Your task to perform on an android device: Search for pizza restaurants on Maps Image 0: 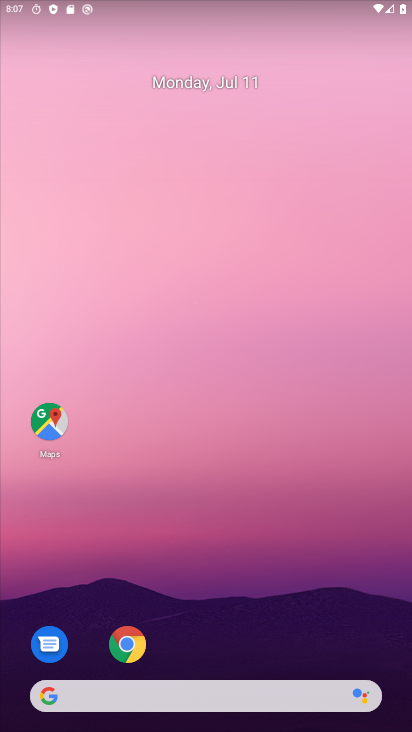
Step 0: click (45, 424)
Your task to perform on an android device: Search for pizza restaurants on Maps Image 1: 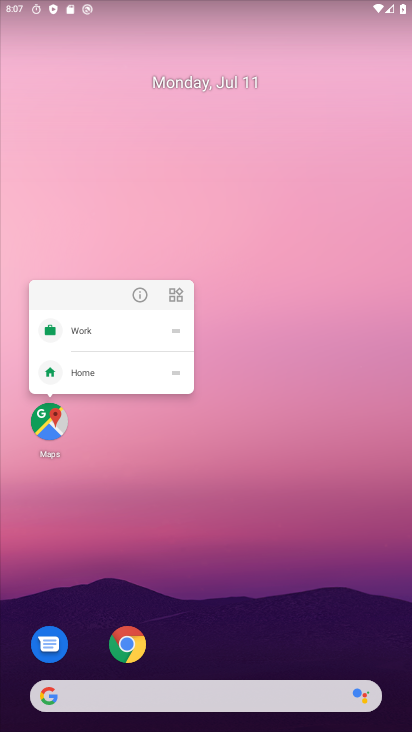
Step 1: click (50, 430)
Your task to perform on an android device: Search for pizza restaurants on Maps Image 2: 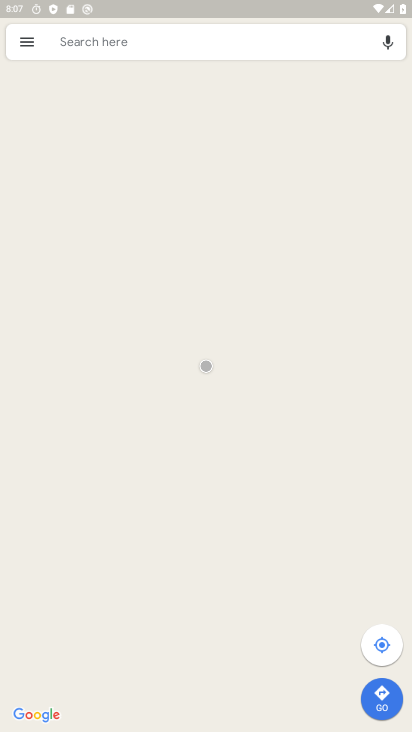
Step 2: click (201, 45)
Your task to perform on an android device: Search for pizza restaurants on Maps Image 3: 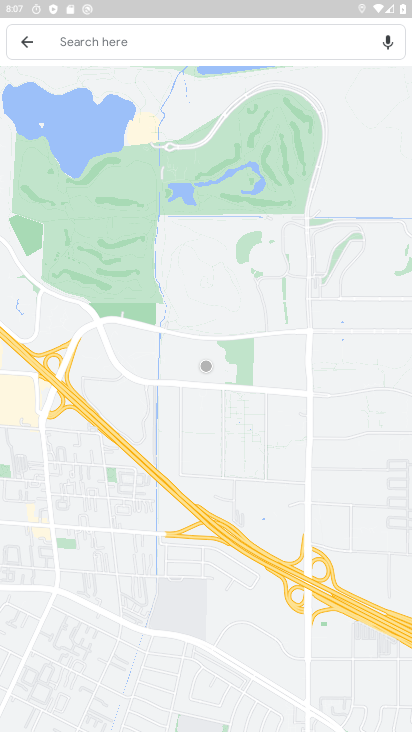
Step 3: click (96, 42)
Your task to perform on an android device: Search for pizza restaurants on Maps Image 4: 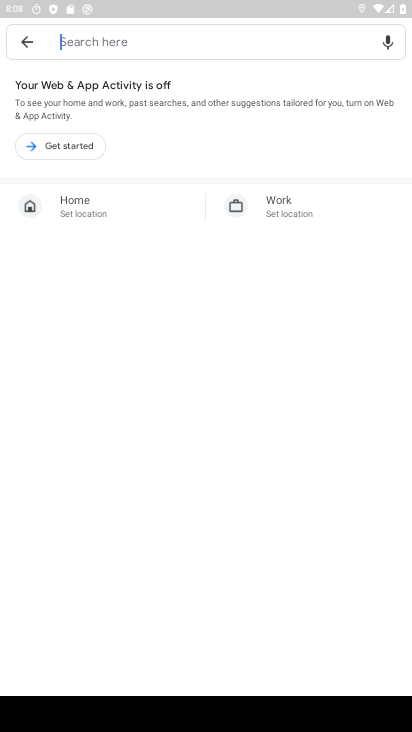
Step 4: type "pizza restaurants "
Your task to perform on an android device: Search for pizza restaurants on Maps Image 5: 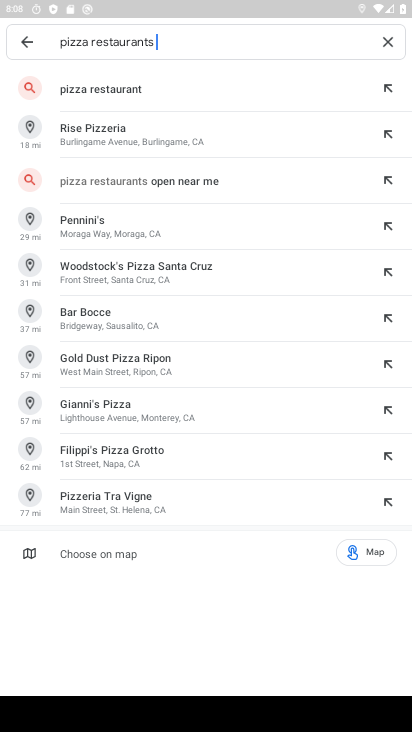
Step 5: click (138, 91)
Your task to perform on an android device: Search for pizza restaurants on Maps Image 6: 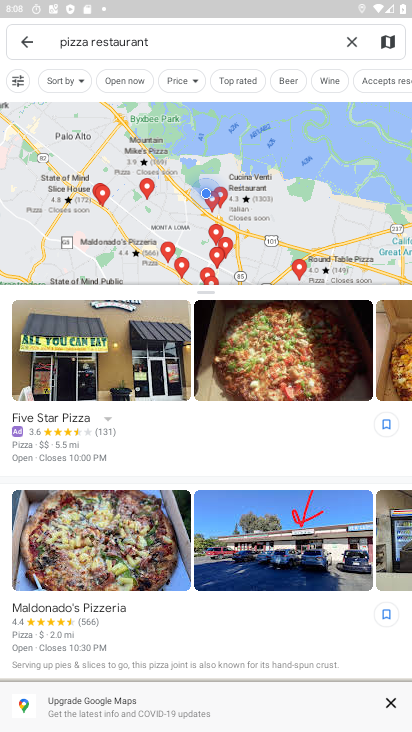
Step 6: task complete